Your task to perform on an android device: turn on the 24-hour format for clock Image 0: 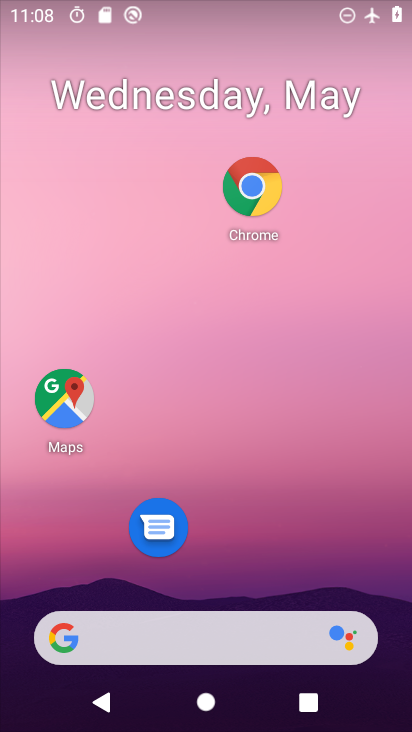
Step 0: drag from (244, 483) to (411, 116)
Your task to perform on an android device: turn on the 24-hour format for clock Image 1: 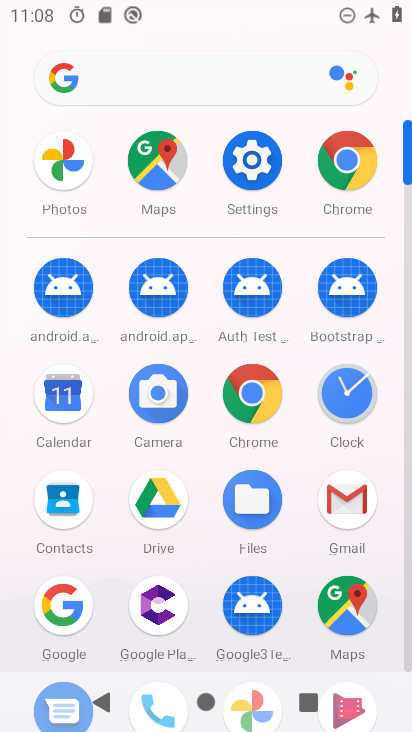
Step 1: click (352, 402)
Your task to perform on an android device: turn on the 24-hour format for clock Image 2: 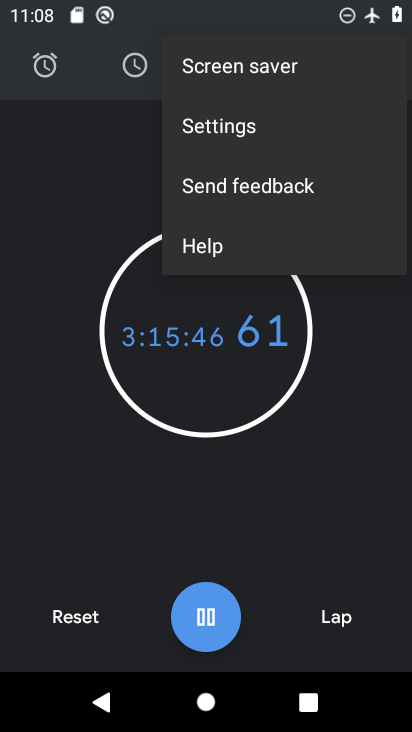
Step 2: click (202, 125)
Your task to perform on an android device: turn on the 24-hour format for clock Image 3: 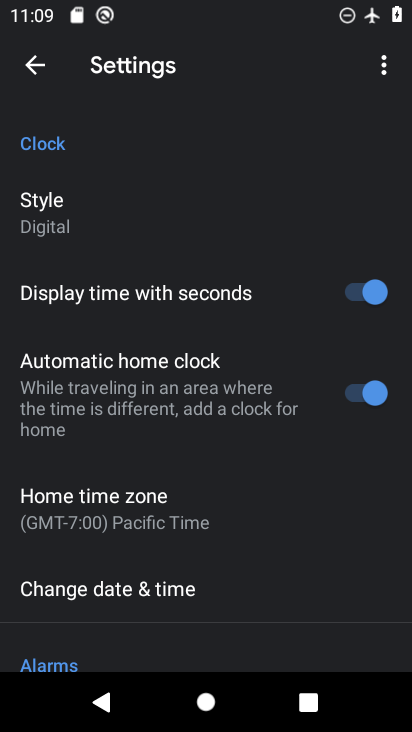
Step 3: drag from (133, 435) to (172, 264)
Your task to perform on an android device: turn on the 24-hour format for clock Image 4: 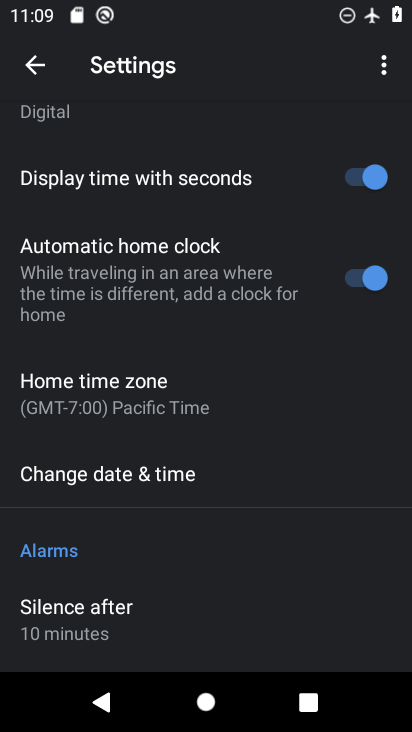
Step 4: drag from (180, 558) to (192, 458)
Your task to perform on an android device: turn on the 24-hour format for clock Image 5: 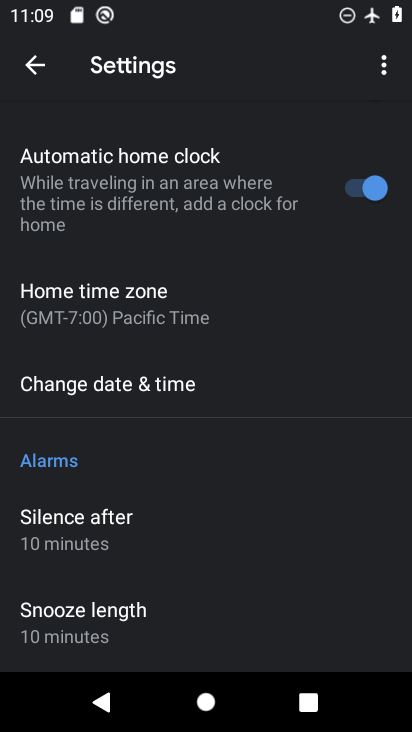
Step 5: click (165, 394)
Your task to perform on an android device: turn on the 24-hour format for clock Image 6: 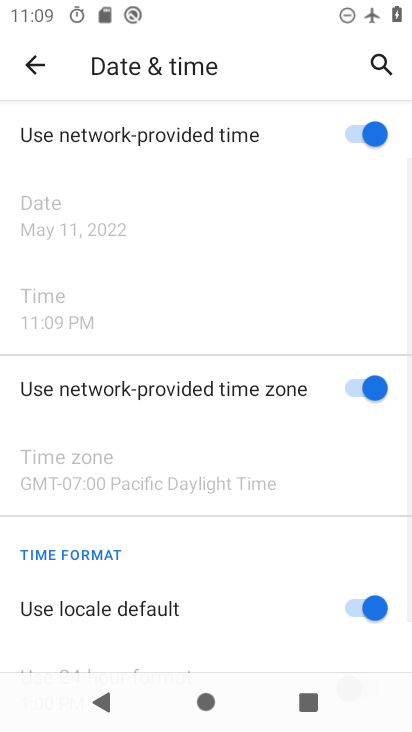
Step 6: drag from (179, 485) to (218, 293)
Your task to perform on an android device: turn on the 24-hour format for clock Image 7: 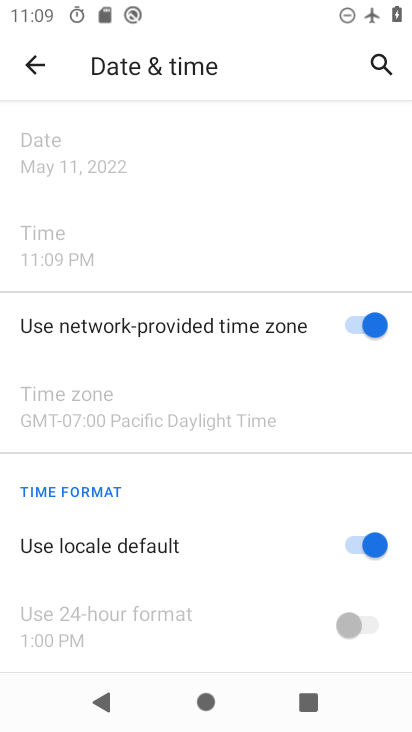
Step 7: click (187, 624)
Your task to perform on an android device: turn on the 24-hour format for clock Image 8: 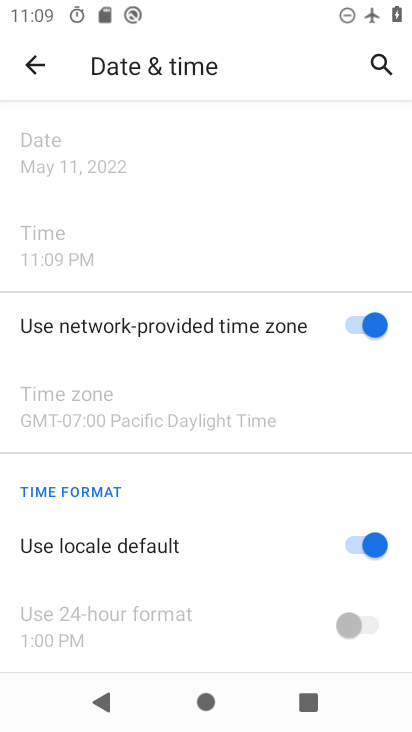
Step 8: click (187, 624)
Your task to perform on an android device: turn on the 24-hour format for clock Image 9: 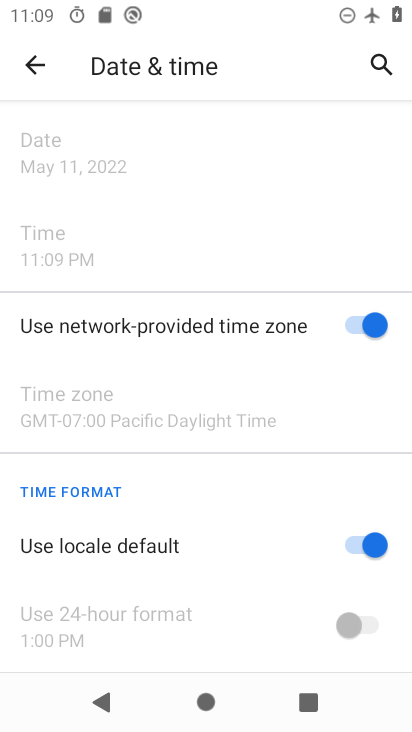
Step 9: task complete